Your task to perform on an android device: Open the Play Movies app and select the watchlist tab. Image 0: 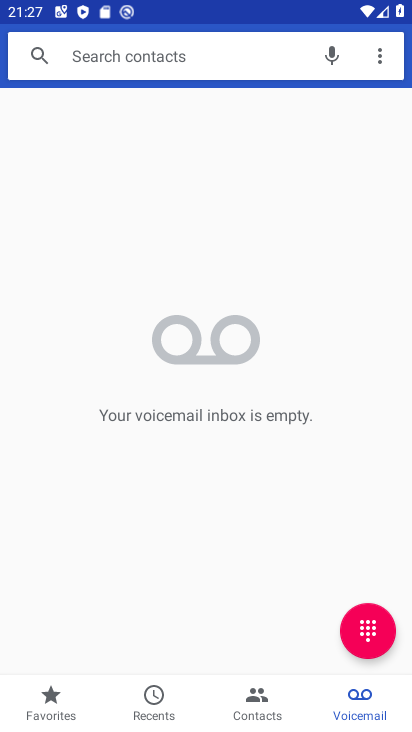
Step 0: press home button
Your task to perform on an android device: Open the Play Movies app and select the watchlist tab. Image 1: 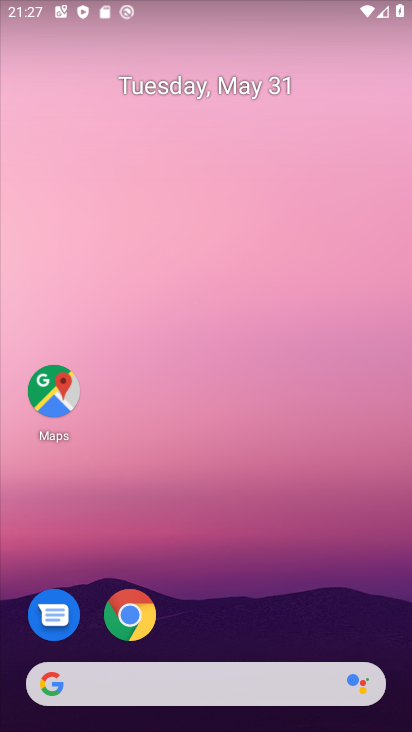
Step 1: drag from (257, 610) to (262, 304)
Your task to perform on an android device: Open the Play Movies app and select the watchlist tab. Image 2: 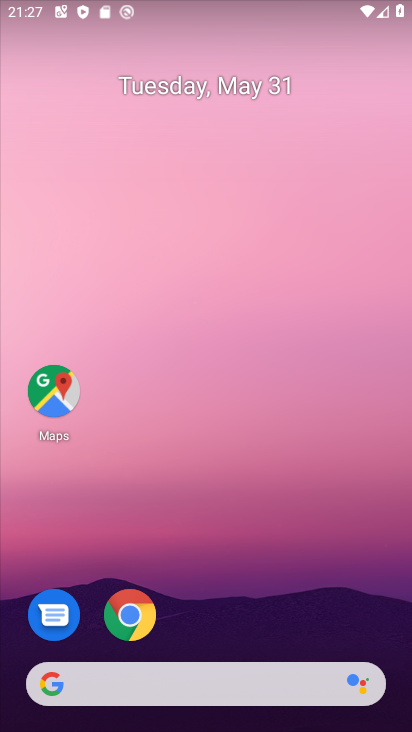
Step 2: drag from (263, 636) to (294, 241)
Your task to perform on an android device: Open the Play Movies app and select the watchlist tab. Image 3: 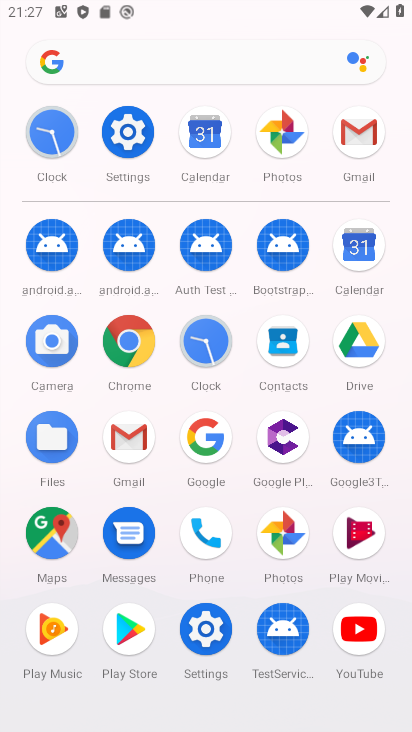
Step 3: click (362, 530)
Your task to perform on an android device: Open the Play Movies app and select the watchlist tab. Image 4: 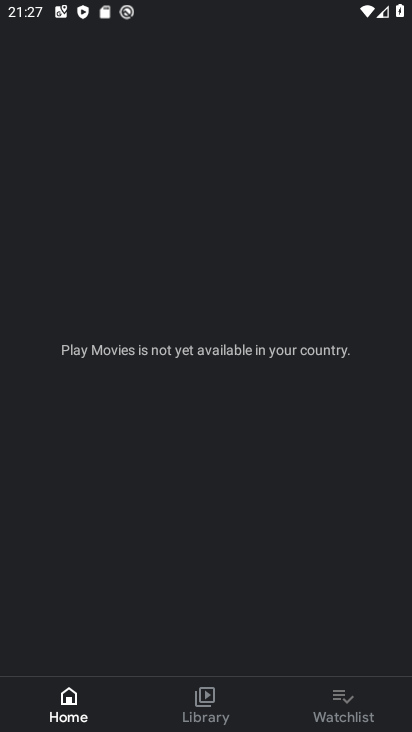
Step 4: click (339, 699)
Your task to perform on an android device: Open the Play Movies app and select the watchlist tab. Image 5: 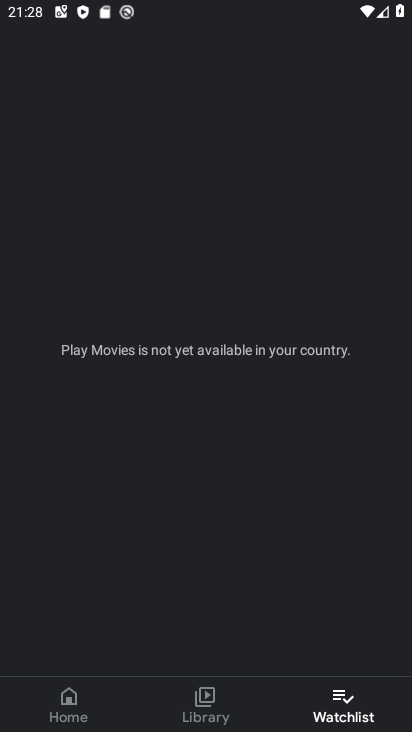
Step 5: task complete